Your task to perform on an android device: Open Google Maps and go to "Timeline" Image 0: 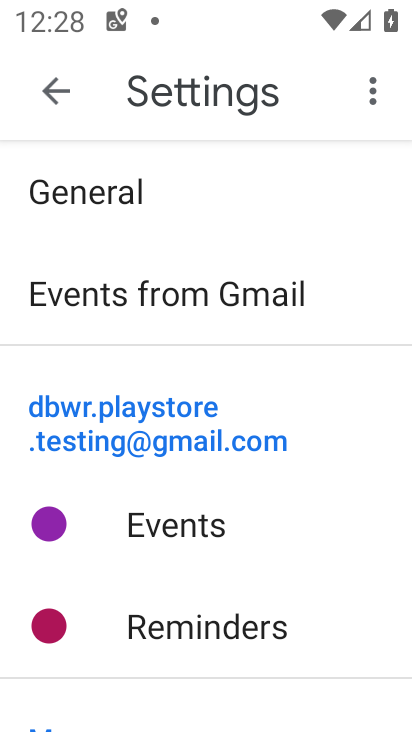
Step 0: press home button
Your task to perform on an android device: Open Google Maps and go to "Timeline" Image 1: 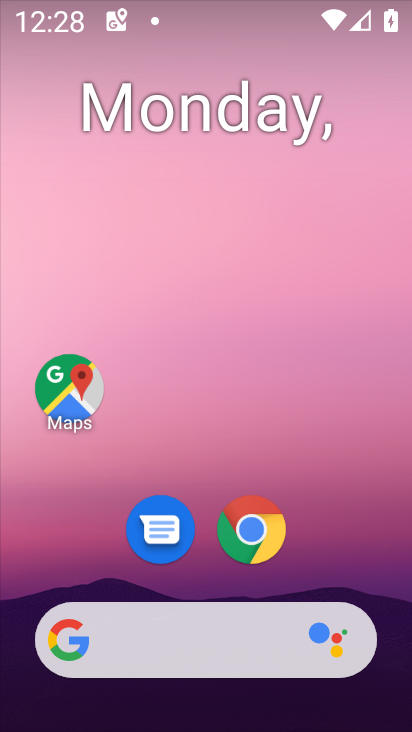
Step 1: click (83, 392)
Your task to perform on an android device: Open Google Maps and go to "Timeline" Image 2: 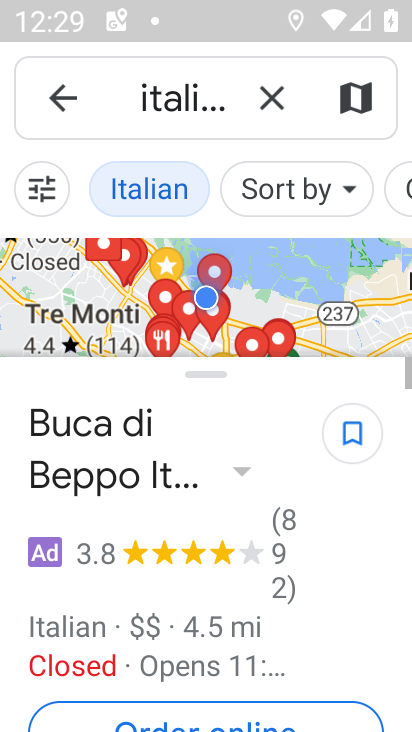
Step 2: click (55, 91)
Your task to perform on an android device: Open Google Maps and go to "Timeline" Image 3: 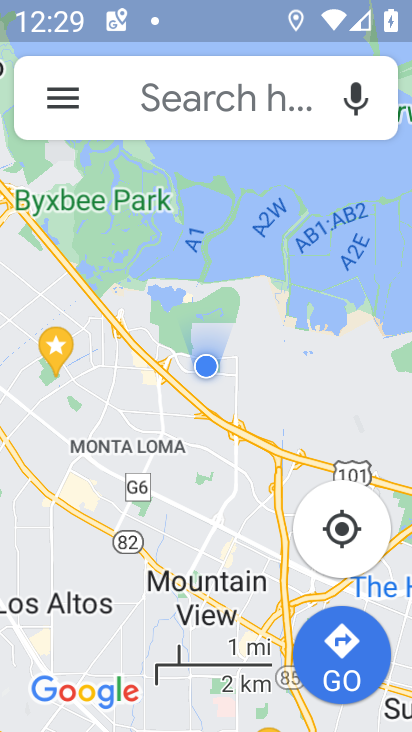
Step 3: click (55, 91)
Your task to perform on an android device: Open Google Maps and go to "Timeline" Image 4: 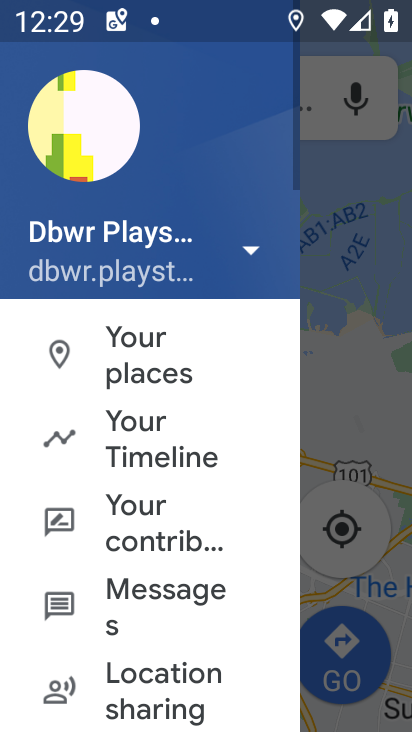
Step 4: click (155, 434)
Your task to perform on an android device: Open Google Maps and go to "Timeline" Image 5: 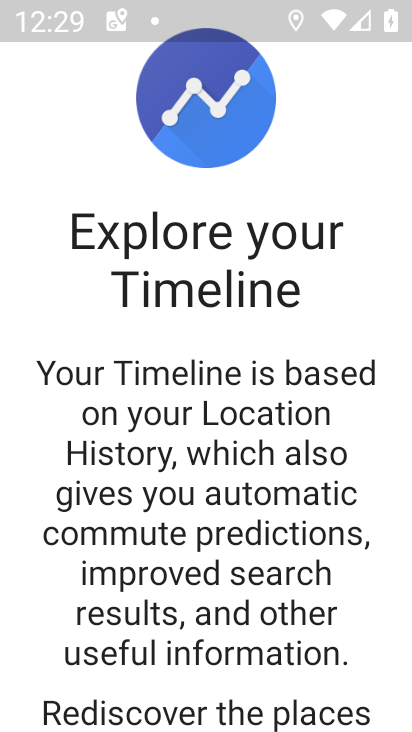
Step 5: drag from (133, 611) to (88, 52)
Your task to perform on an android device: Open Google Maps and go to "Timeline" Image 6: 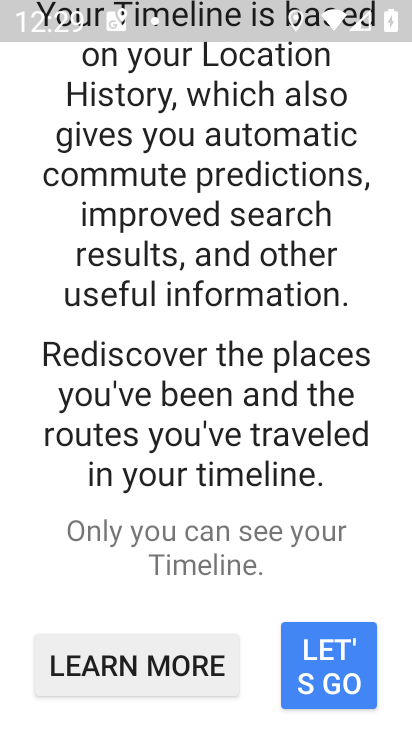
Step 6: click (336, 660)
Your task to perform on an android device: Open Google Maps and go to "Timeline" Image 7: 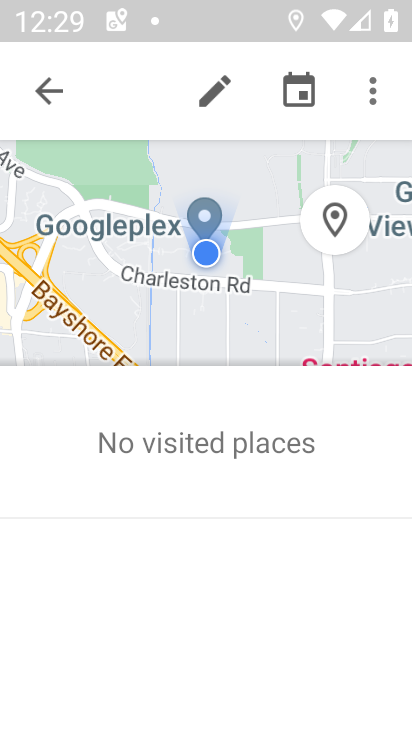
Step 7: task complete